Your task to perform on an android device: turn on sleep mode Image 0: 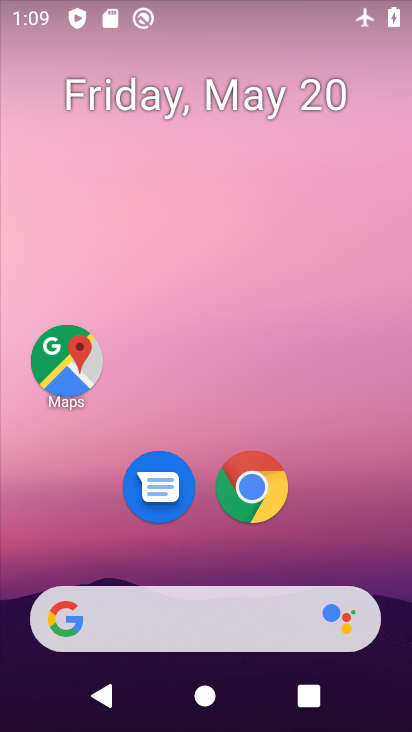
Step 0: drag from (330, 485) to (280, 37)
Your task to perform on an android device: turn on sleep mode Image 1: 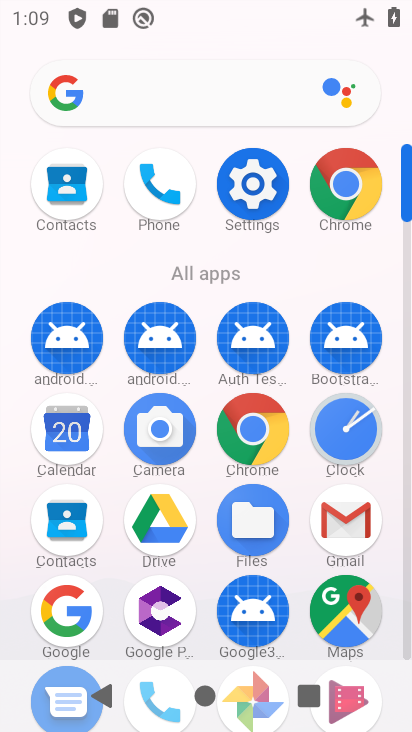
Step 1: drag from (7, 617) to (22, 241)
Your task to perform on an android device: turn on sleep mode Image 2: 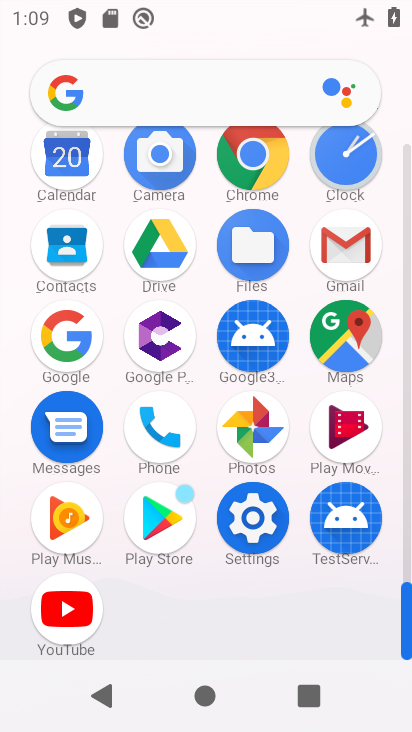
Step 2: click (248, 517)
Your task to perform on an android device: turn on sleep mode Image 3: 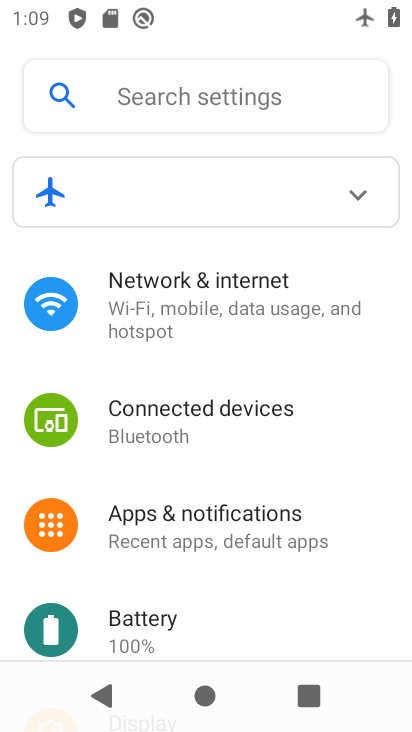
Step 3: drag from (253, 540) to (284, 289)
Your task to perform on an android device: turn on sleep mode Image 4: 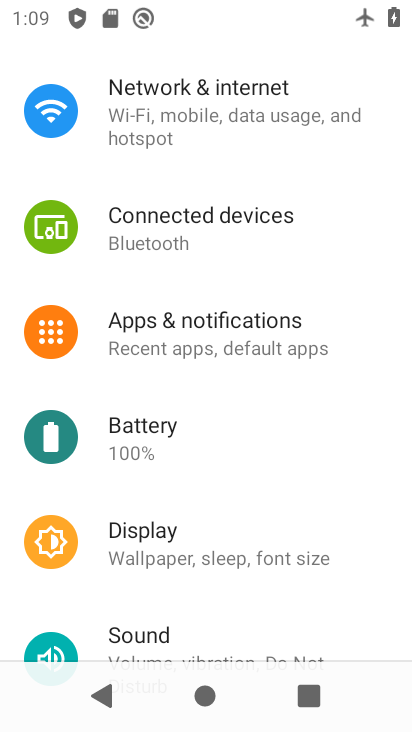
Step 4: click (186, 525)
Your task to perform on an android device: turn on sleep mode Image 5: 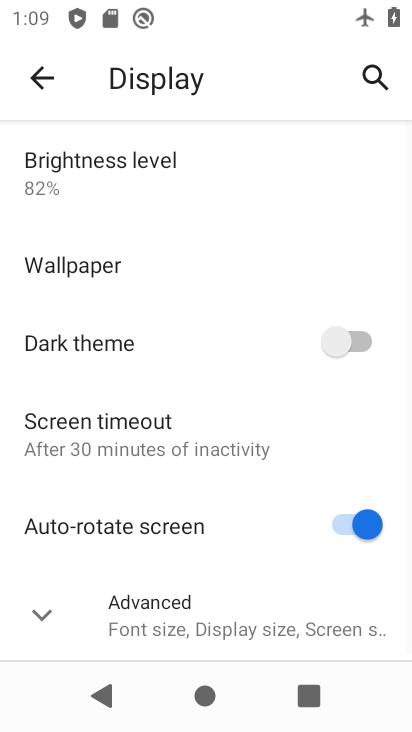
Step 5: click (53, 613)
Your task to perform on an android device: turn on sleep mode Image 6: 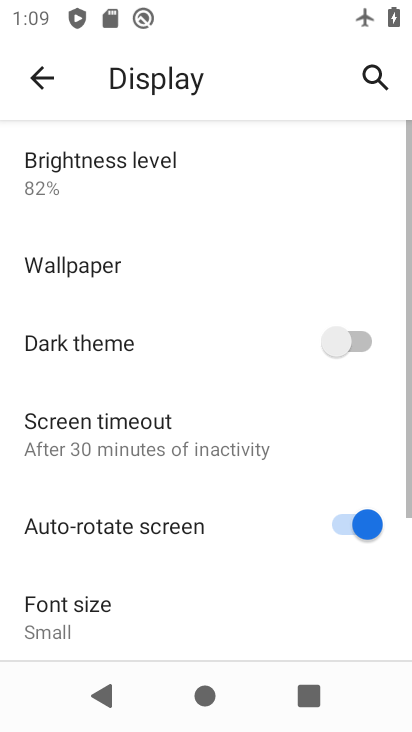
Step 6: task complete